Your task to perform on an android device: Go to sound settings Image 0: 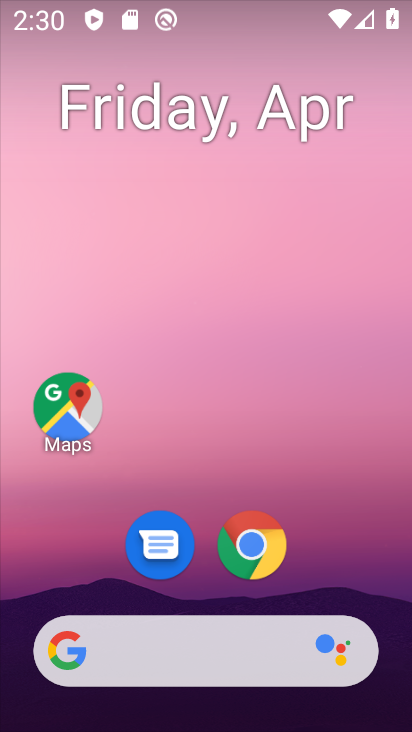
Step 0: drag from (295, 584) to (361, 3)
Your task to perform on an android device: Go to sound settings Image 1: 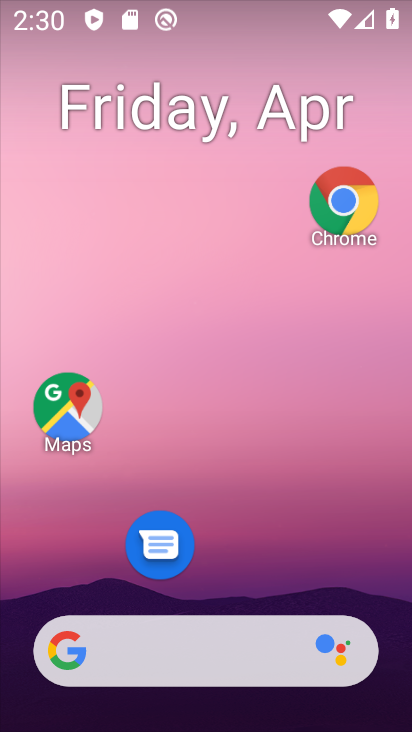
Step 1: drag from (221, 582) to (232, 2)
Your task to perform on an android device: Go to sound settings Image 2: 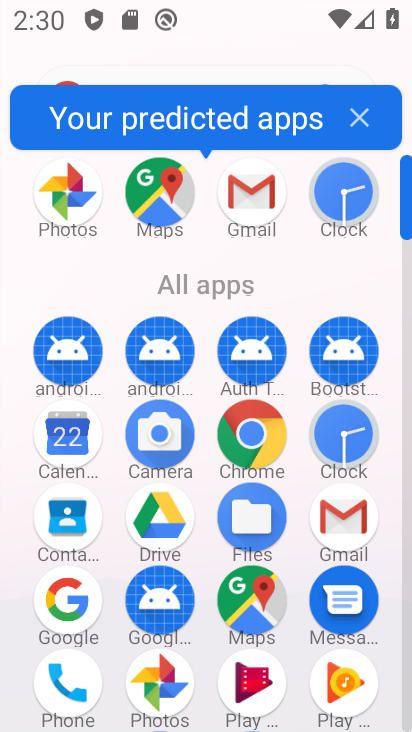
Step 2: drag from (202, 523) to (221, 156)
Your task to perform on an android device: Go to sound settings Image 3: 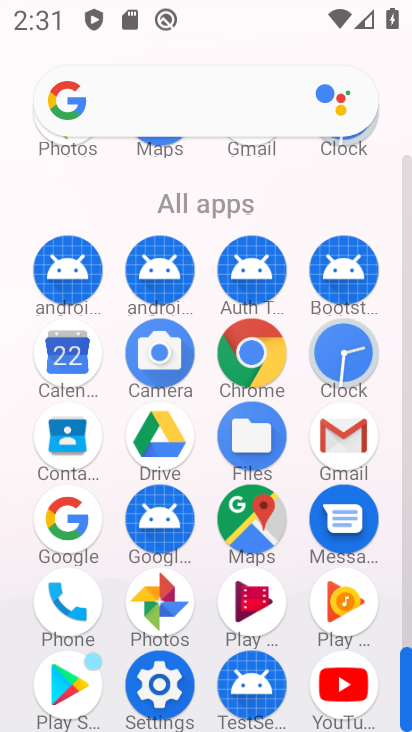
Step 3: click (157, 688)
Your task to perform on an android device: Go to sound settings Image 4: 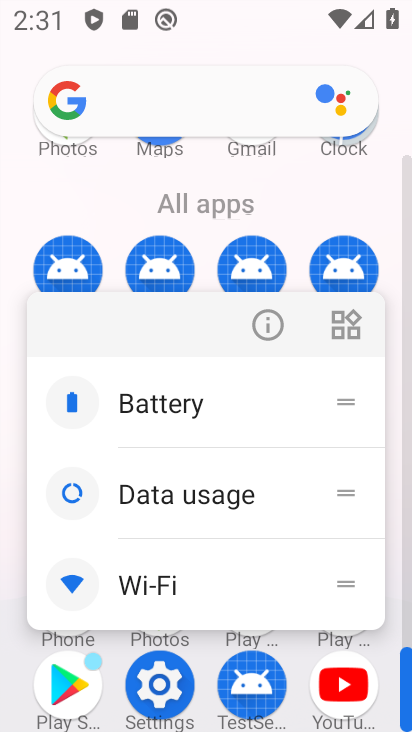
Step 4: click (158, 672)
Your task to perform on an android device: Go to sound settings Image 5: 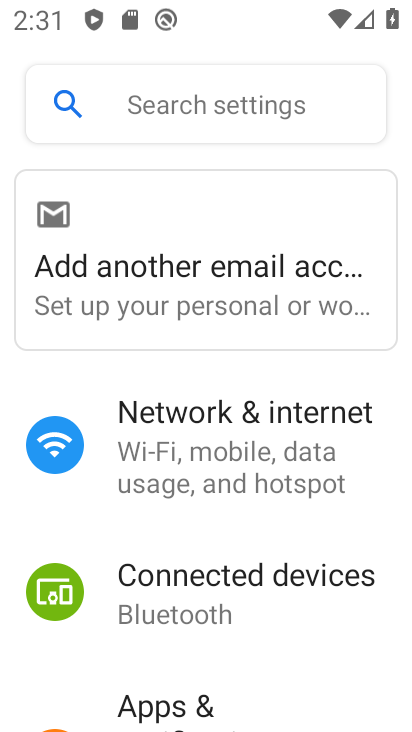
Step 5: drag from (147, 541) to (238, 18)
Your task to perform on an android device: Go to sound settings Image 6: 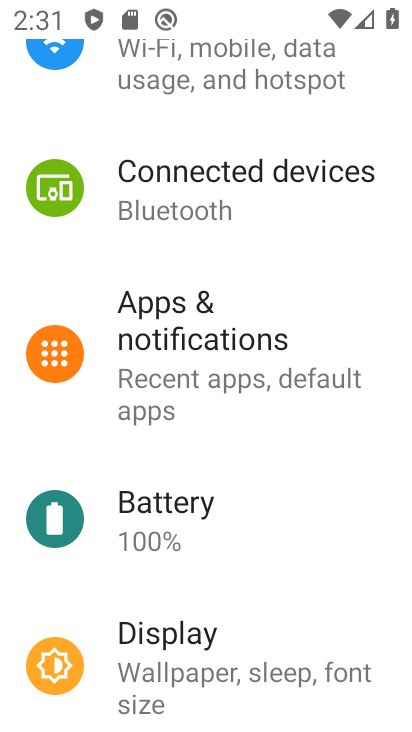
Step 6: drag from (170, 538) to (230, 145)
Your task to perform on an android device: Go to sound settings Image 7: 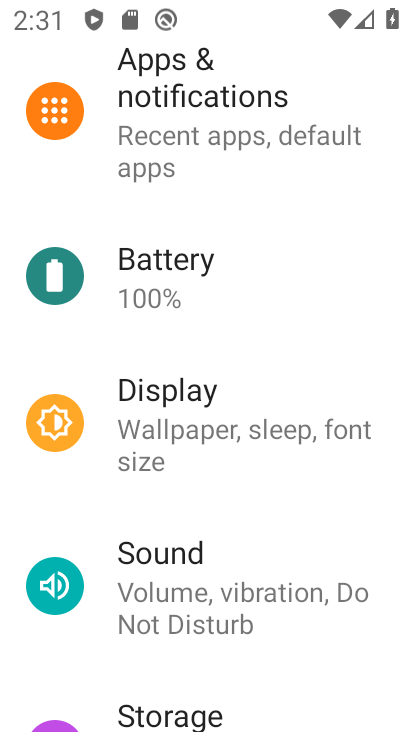
Step 7: click (170, 590)
Your task to perform on an android device: Go to sound settings Image 8: 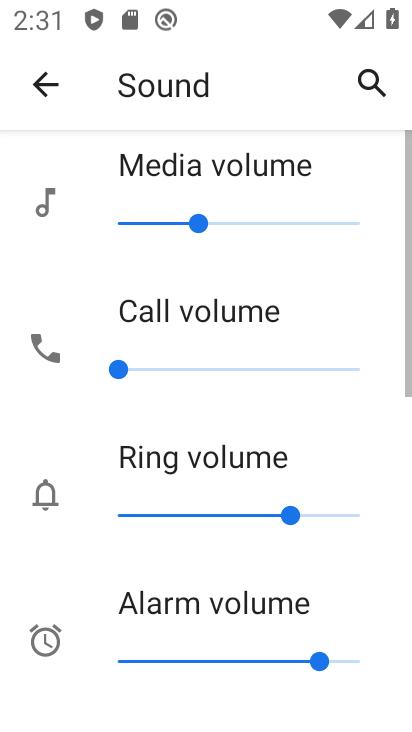
Step 8: task complete